Your task to perform on an android device: turn off location Image 0: 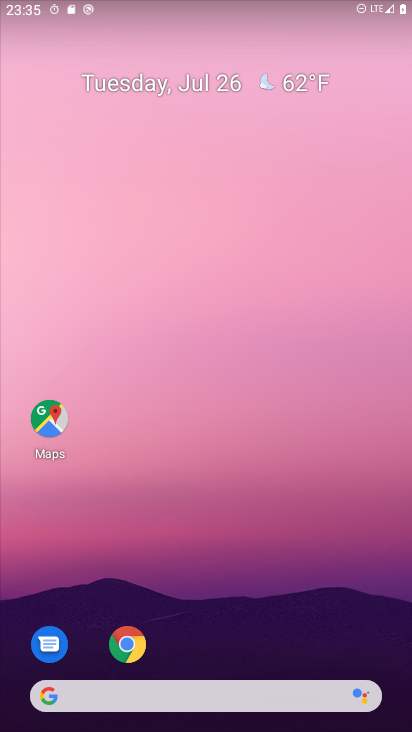
Step 0: drag from (246, 652) to (258, 32)
Your task to perform on an android device: turn off location Image 1: 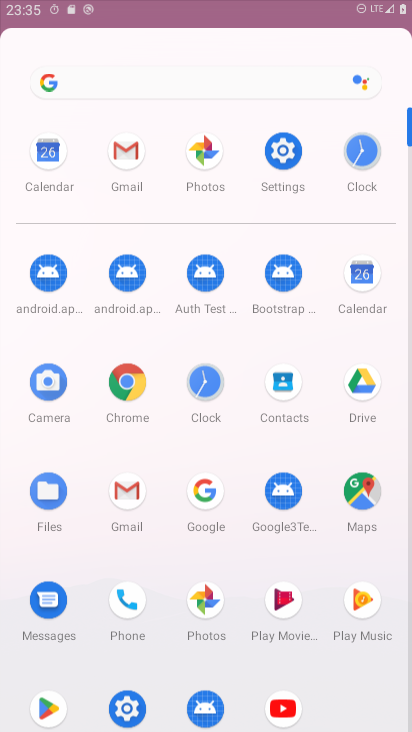
Step 1: click (281, 130)
Your task to perform on an android device: turn off location Image 2: 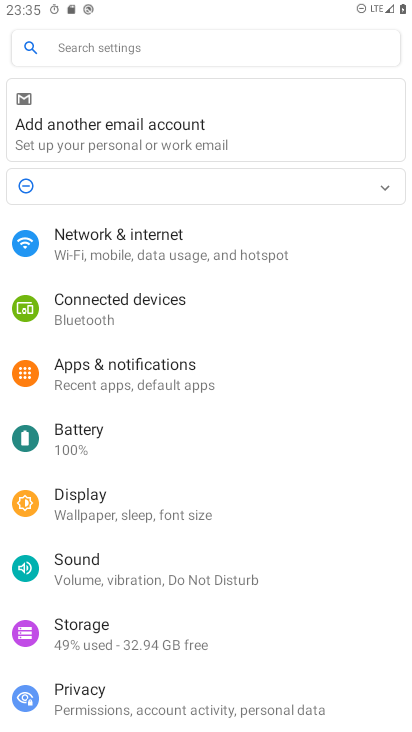
Step 2: drag from (269, 497) to (252, 154)
Your task to perform on an android device: turn off location Image 3: 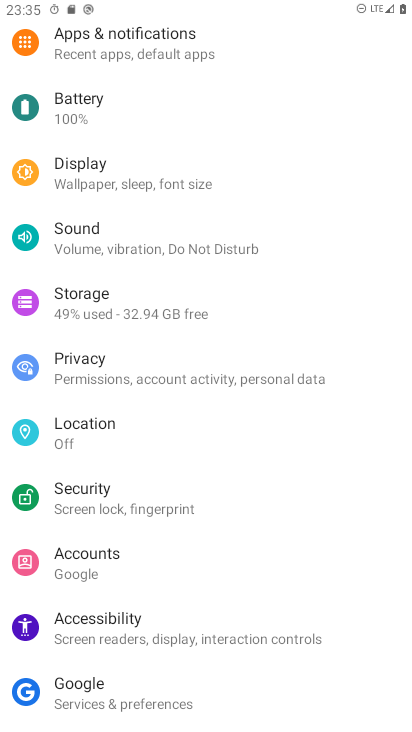
Step 3: click (60, 428)
Your task to perform on an android device: turn off location Image 4: 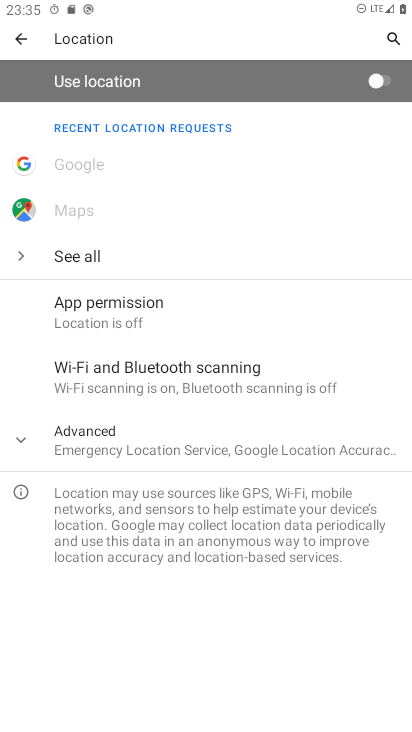
Step 4: task complete